Your task to perform on an android device: open a bookmark in the chrome app Image 0: 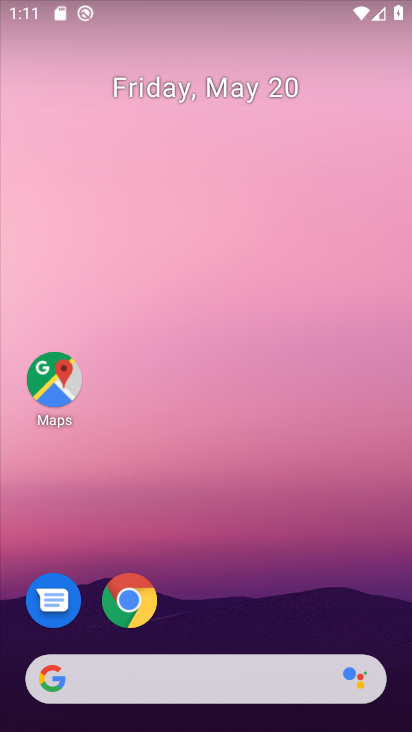
Step 0: click (126, 608)
Your task to perform on an android device: open a bookmark in the chrome app Image 1: 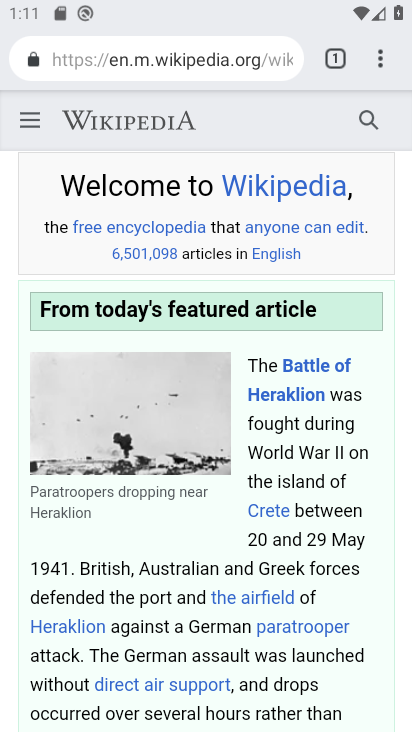
Step 1: click (381, 60)
Your task to perform on an android device: open a bookmark in the chrome app Image 2: 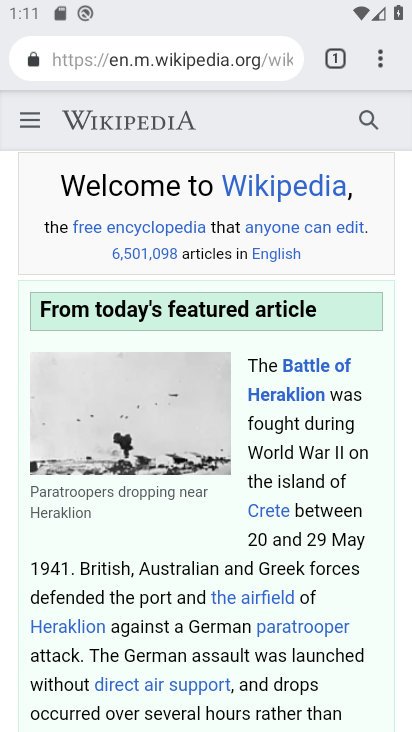
Step 2: click (376, 60)
Your task to perform on an android device: open a bookmark in the chrome app Image 3: 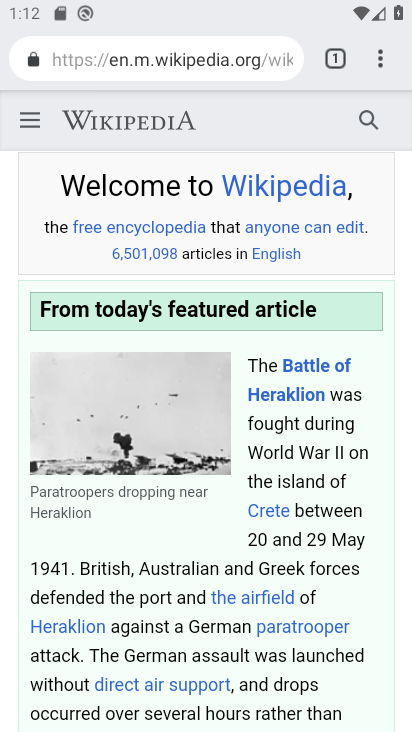
Step 3: click (383, 50)
Your task to perform on an android device: open a bookmark in the chrome app Image 4: 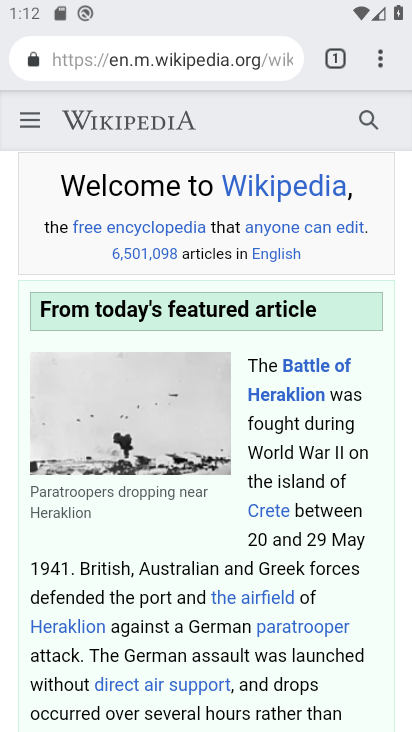
Step 4: click (378, 51)
Your task to perform on an android device: open a bookmark in the chrome app Image 5: 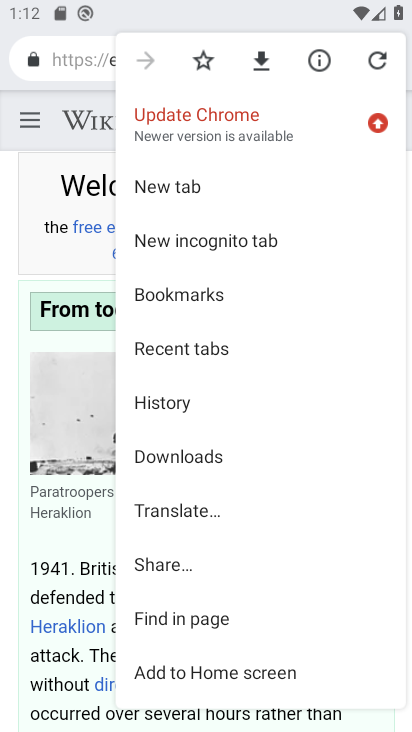
Step 5: click (194, 294)
Your task to perform on an android device: open a bookmark in the chrome app Image 6: 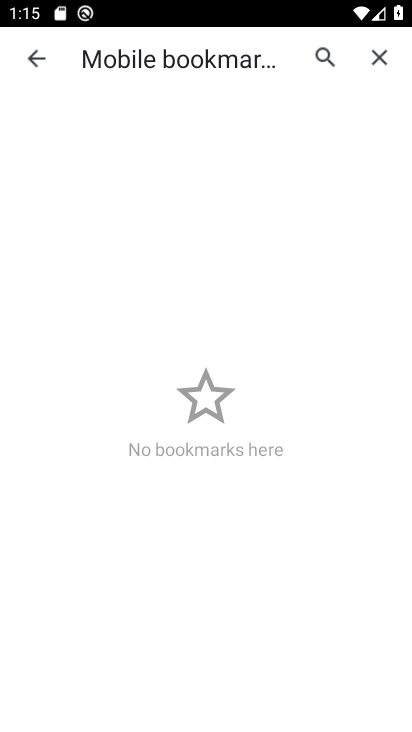
Step 6: task complete